Your task to perform on an android device: Go to Maps Image 0: 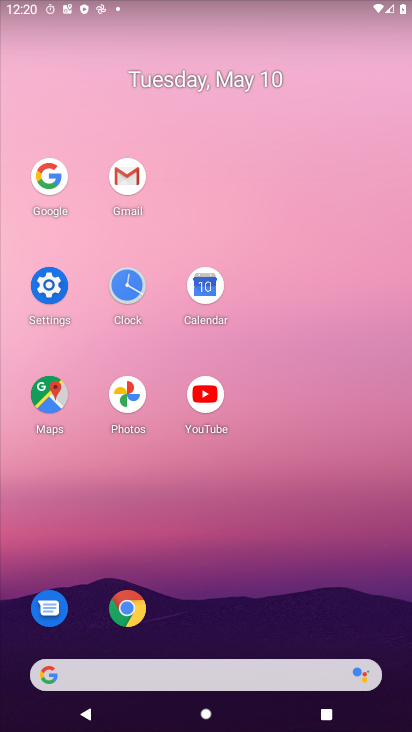
Step 0: click (42, 401)
Your task to perform on an android device: Go to Maps Image 1: 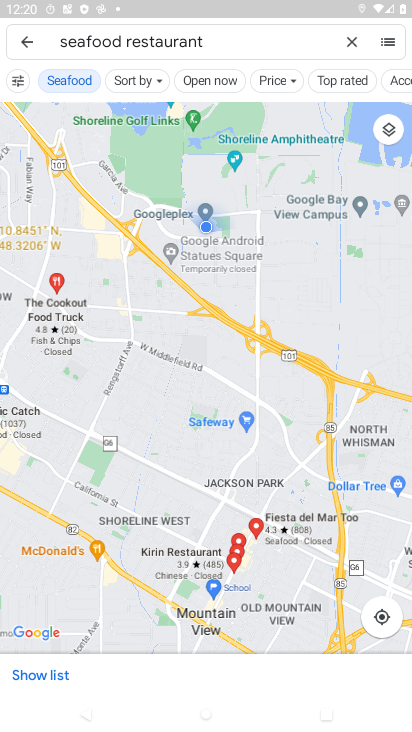
Step 1: task complete